Your task to perform on an android device: Toggle the flashlight Image 0: 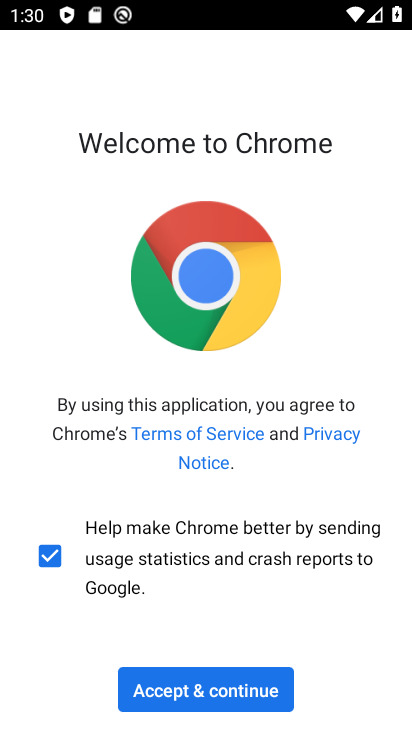
Step 0: click (220, 704)
Your task to perform on an android device: Toggle the flashlight Image 1: 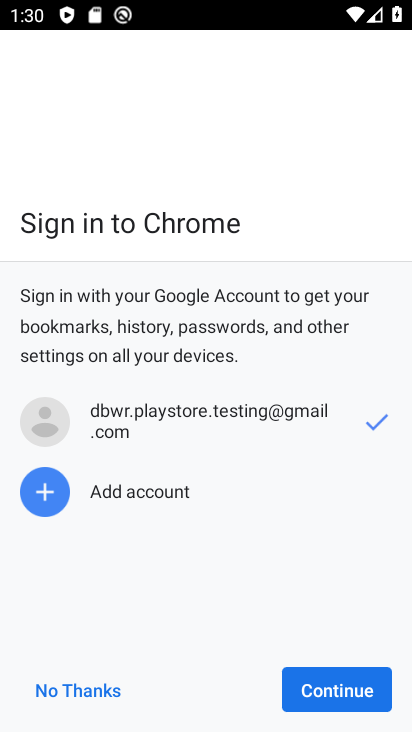
Step 1: press home button
Your task to perform on an android device: Toggle the flashlight Image 2: 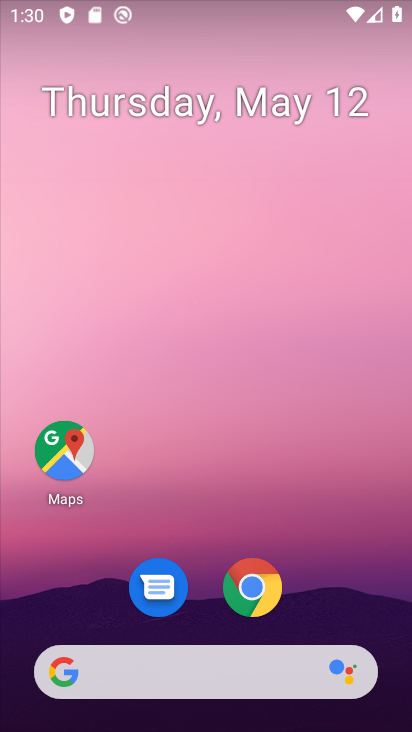
Step 2: click (253, 591)
Your task to perform on an android device: Toggle the flashlight Image 3: 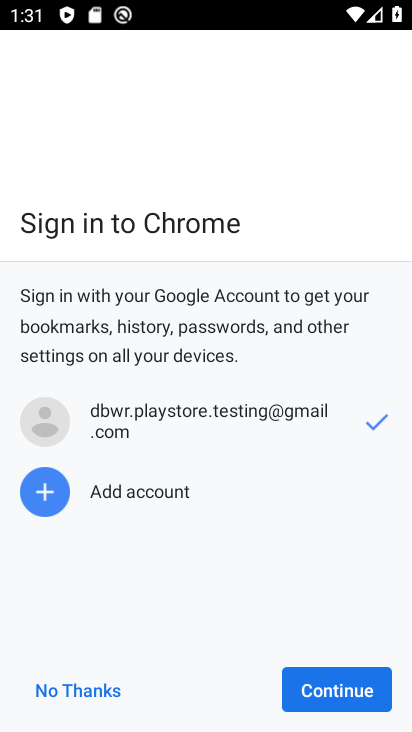
Step 3: press home button
Your task to perform on an android device: Toggle the flashlight Image 4: 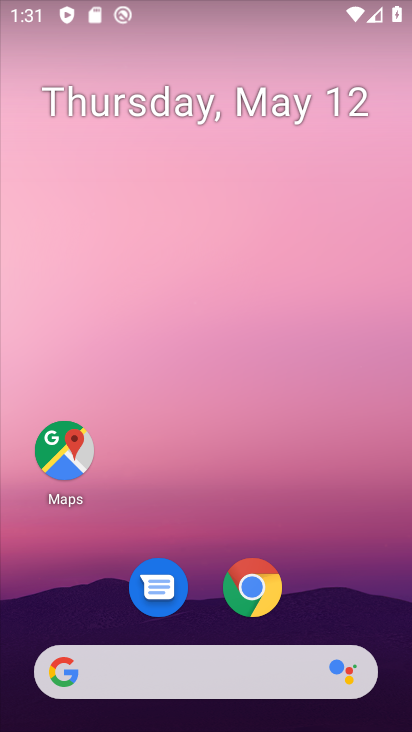
Step 4: drag from (212, 616) to (259, 4)
Your task to perform on an android device: Toggle the flashlight Image 5: 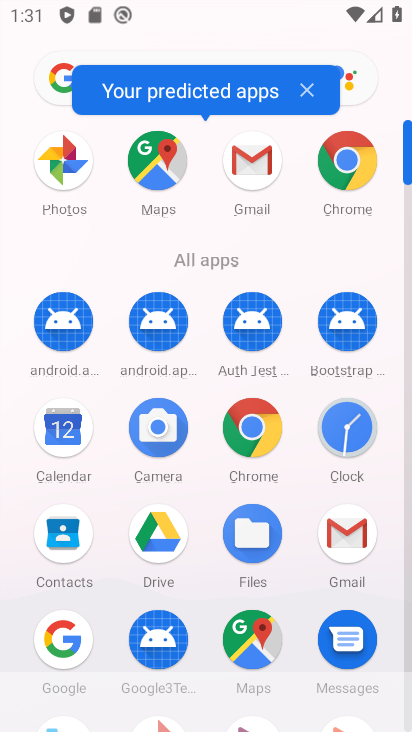
Step 5: drag from (201, 664) to (251, 206)
Your task to perform on an android device: Toggle the flashlight Image 6: 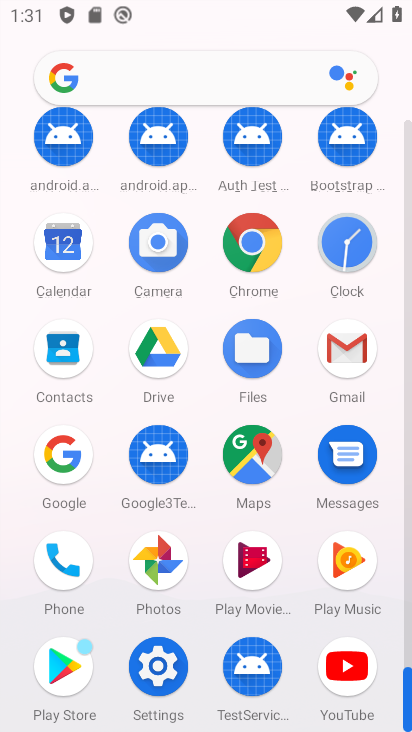
Step 6: click (156, 681)
Your task to perform on an android device: Toggle the flashlight Image 7: 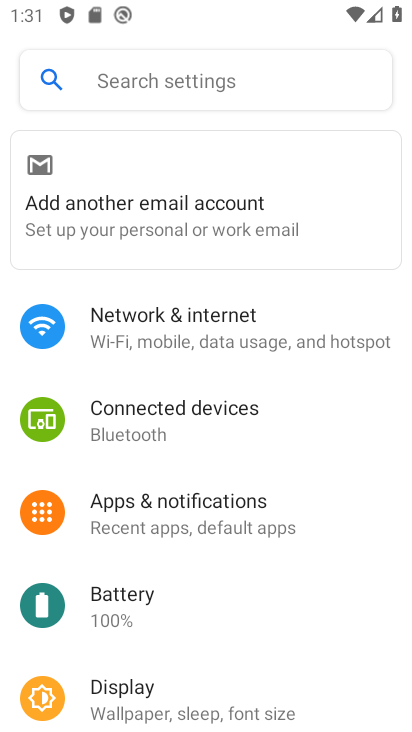
Step 7: task complete